Your task to perform on an android device: When is my next meeting? Image 0: 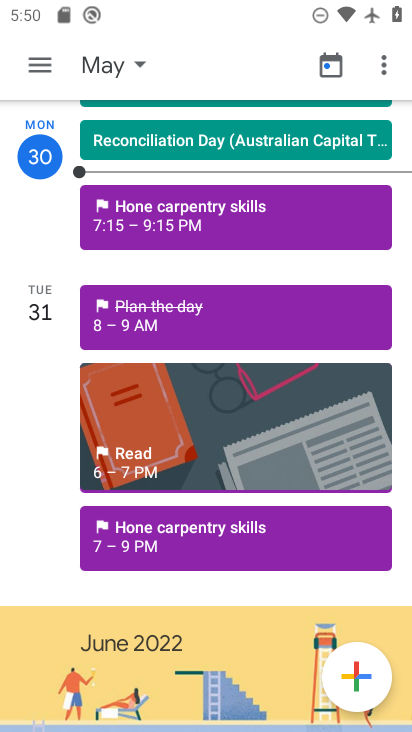
Step 0: press back button
Your task to perform on an android device: When is my next meeting? Image 1: 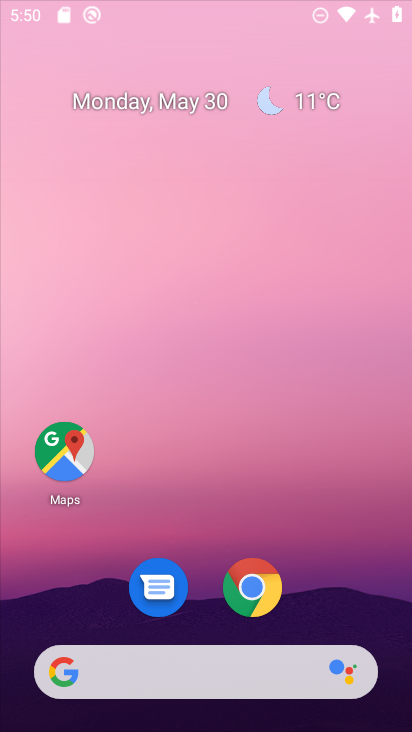
Step 1: press home button
Your task to perform on an android device: When is my next meeting? Image 2: 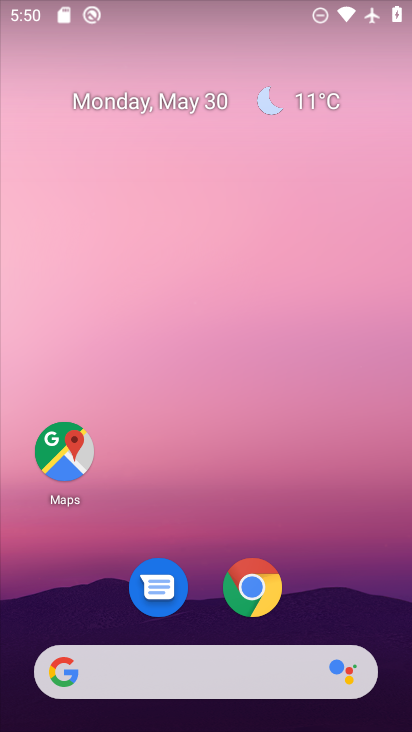
Step 2: drag from (345, 540) to (241, 41)
Your task to perform on an android device: When is my next meeting? Image 3: 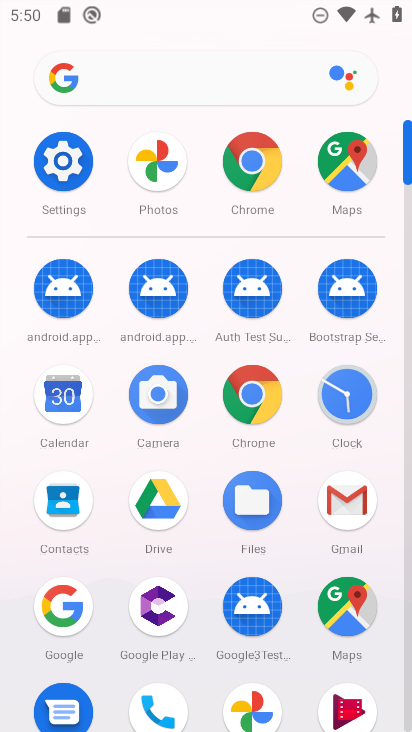
Step 3: drag from (4, 492) to (14, 226)
Your task to perform on an android device: When is my next meeting? Image 4: 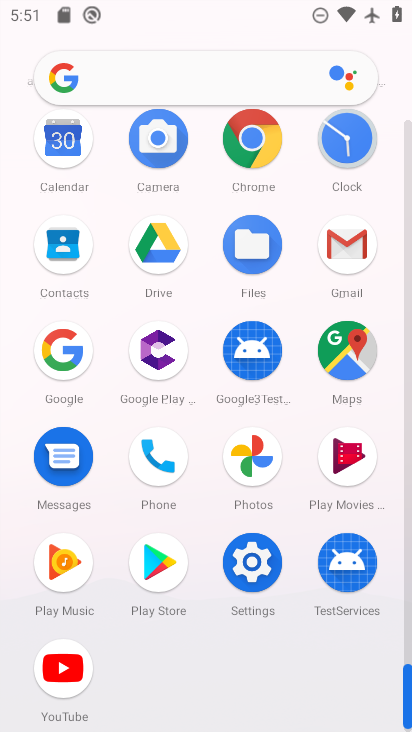
Step 4: drag from (3, 556) to (17, 283)
Your task to perform on an android device: When is my next meeting? Image 5: 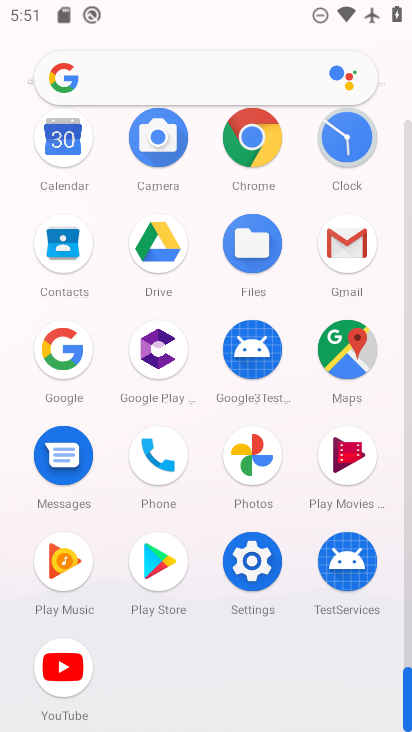
Step 5: click (58, 132)
Your task to perform on an android device: When is my next meeting? Image 6: 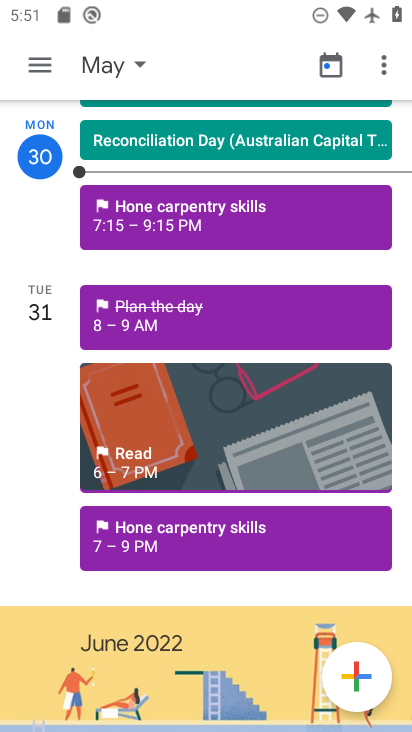
Step 6: drag from (240, 158) to (224, 529)
Your task to perform on an android device: When is my next meeting? Image 7: 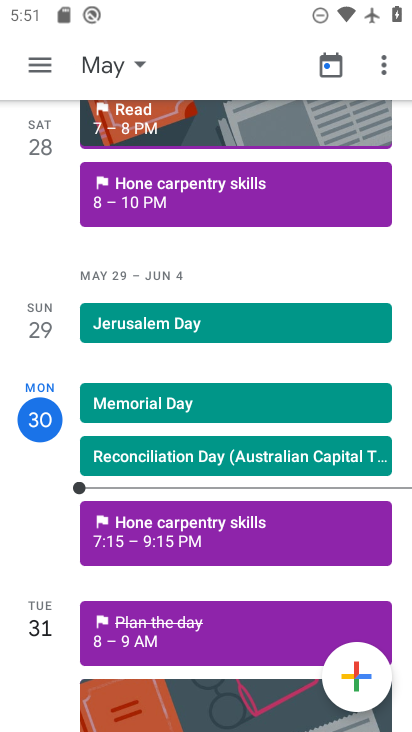
Step 7: click (33, 66)
Your task to perform on an android device: When is my next meeting? Image 8: 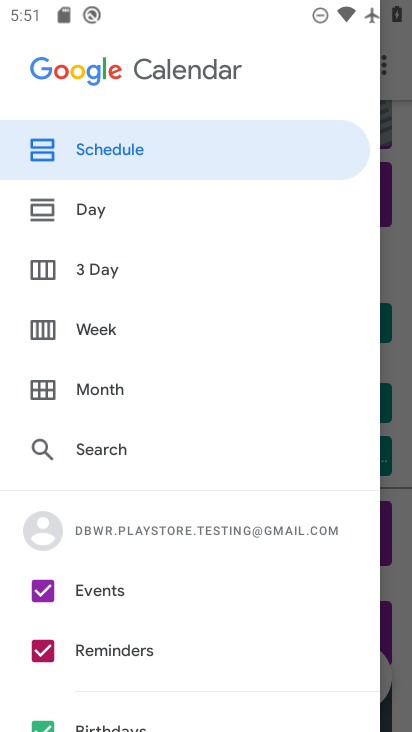
Step 8: click (139, 149)
Your task to perform on an android device: When is my next meeting? Image 9: 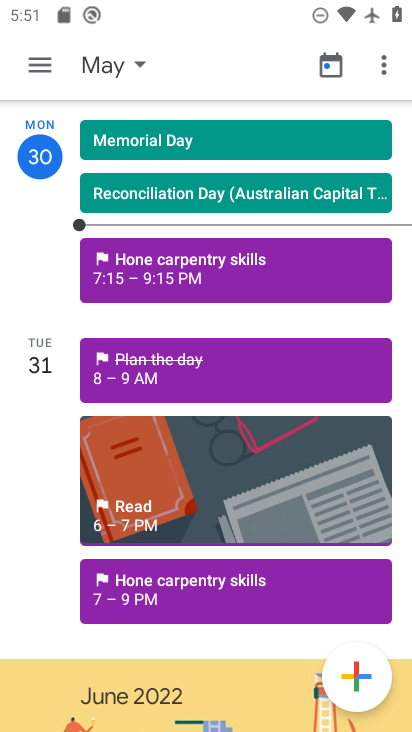
Step 9: task complete